Your task to perform on an android device: turn on showing notifications on the lock screen Image 0: 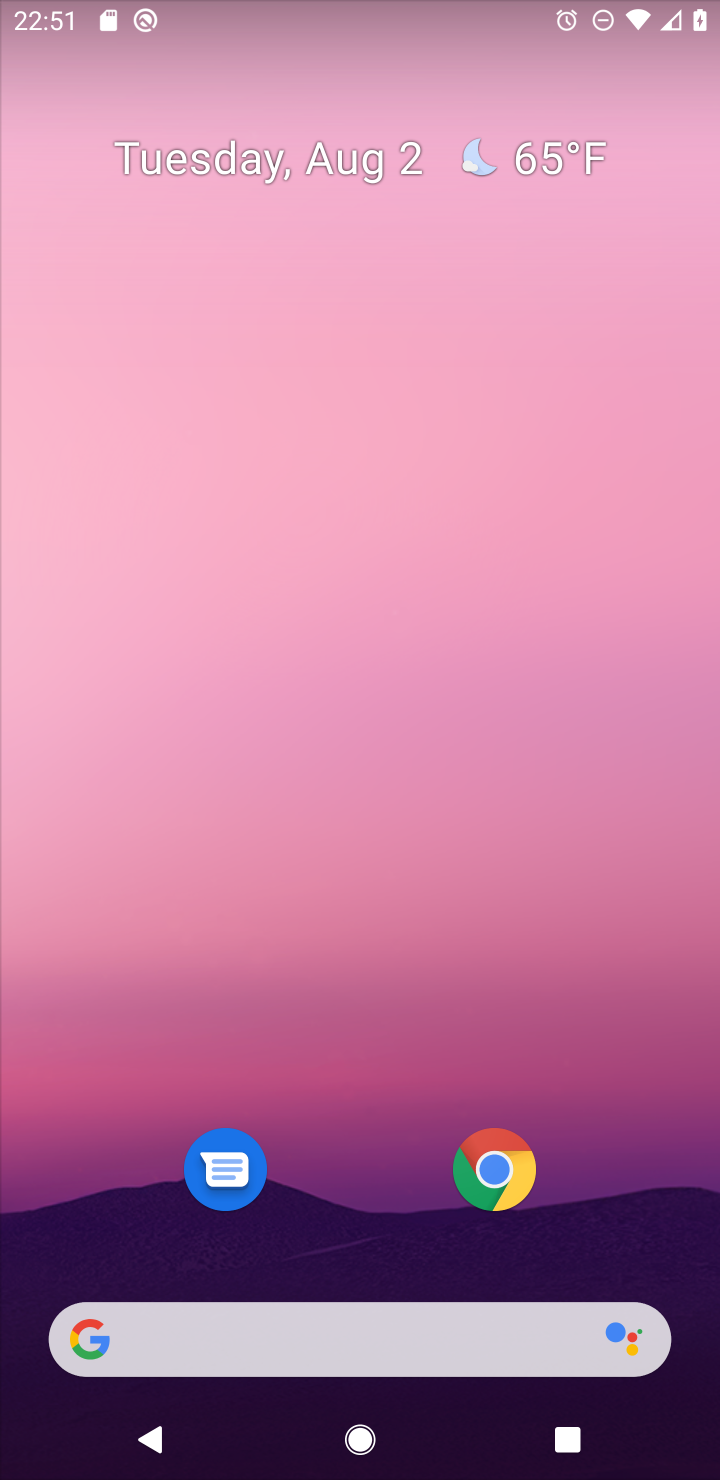
Step 0: drag from (353, 997) to (353, 71)
Your task to perform on an android device: turn on showing notifications on the lock screen Image 1: 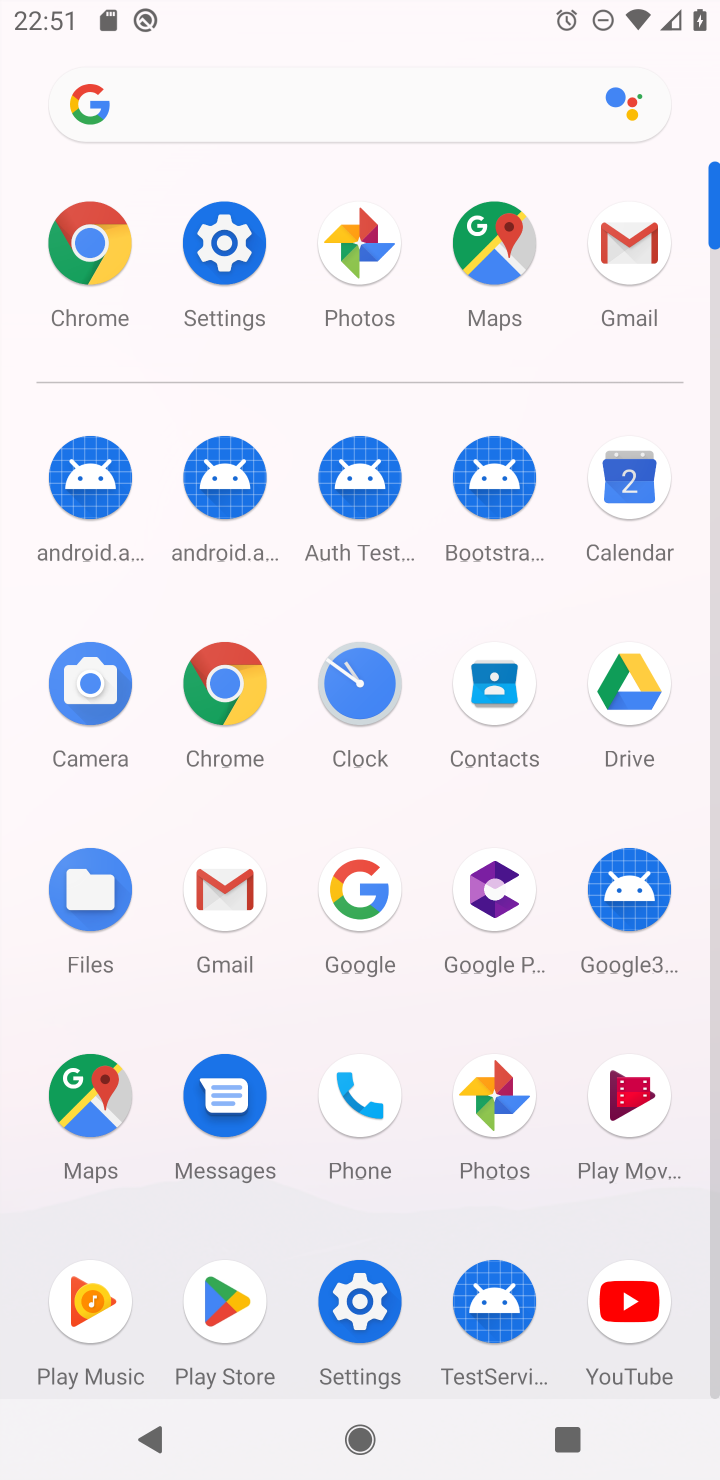
Step 1: click (219, 240)
Your task to perform on an android device: turn on showing notifications on the lock screen Image 2: 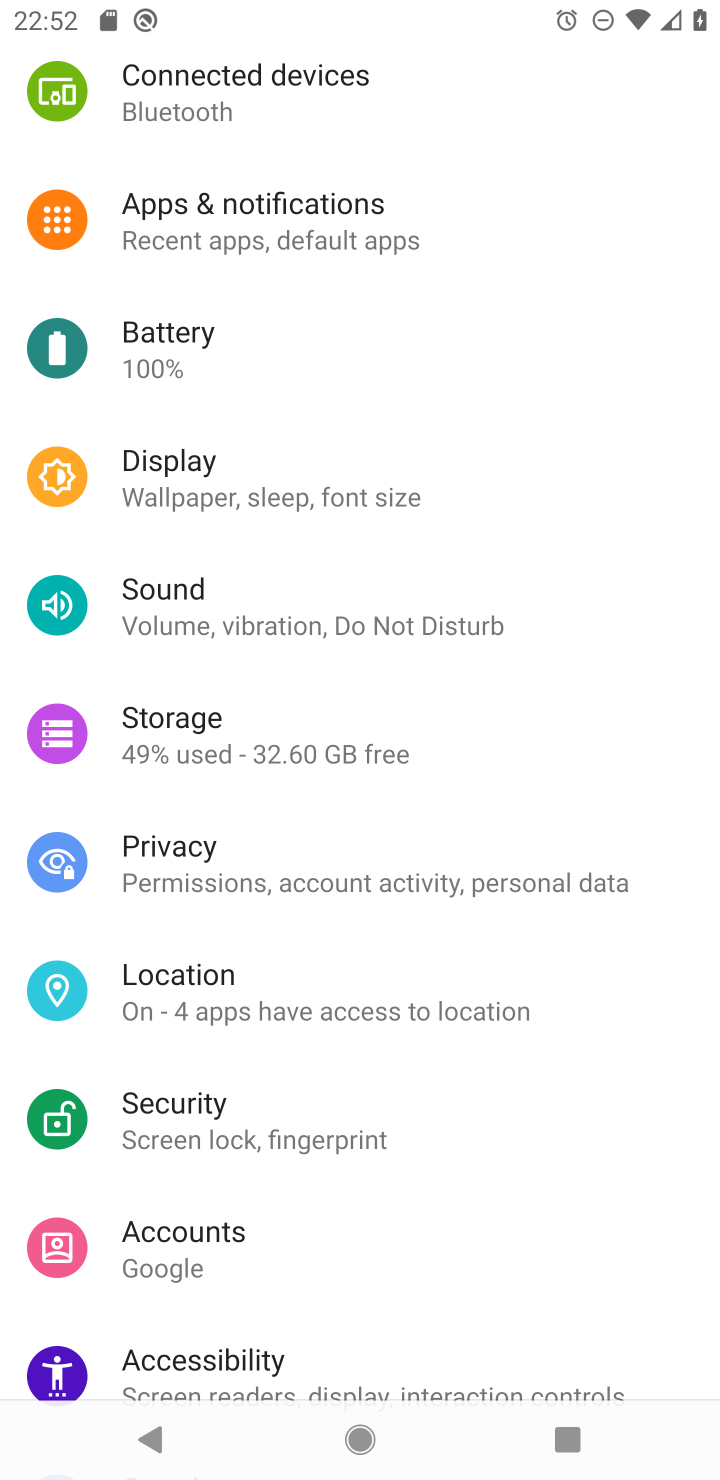
Step 2: click (189, 241)
Your task to perform on an android device: turn on showing notifications on the lock screen Image 3: 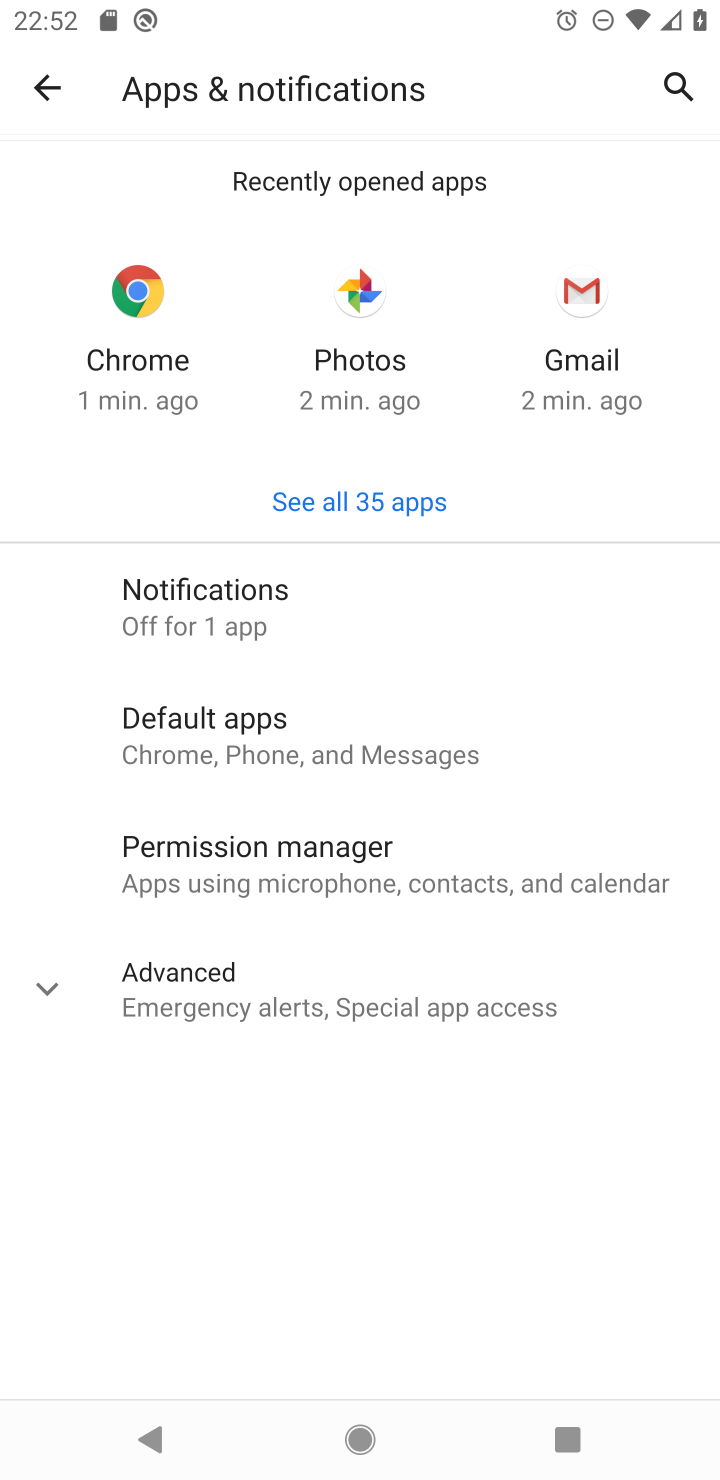
Step 3: click (248, 595)
Your task to perform on an android device: turn on showing notifications on the lock screen Image 4: 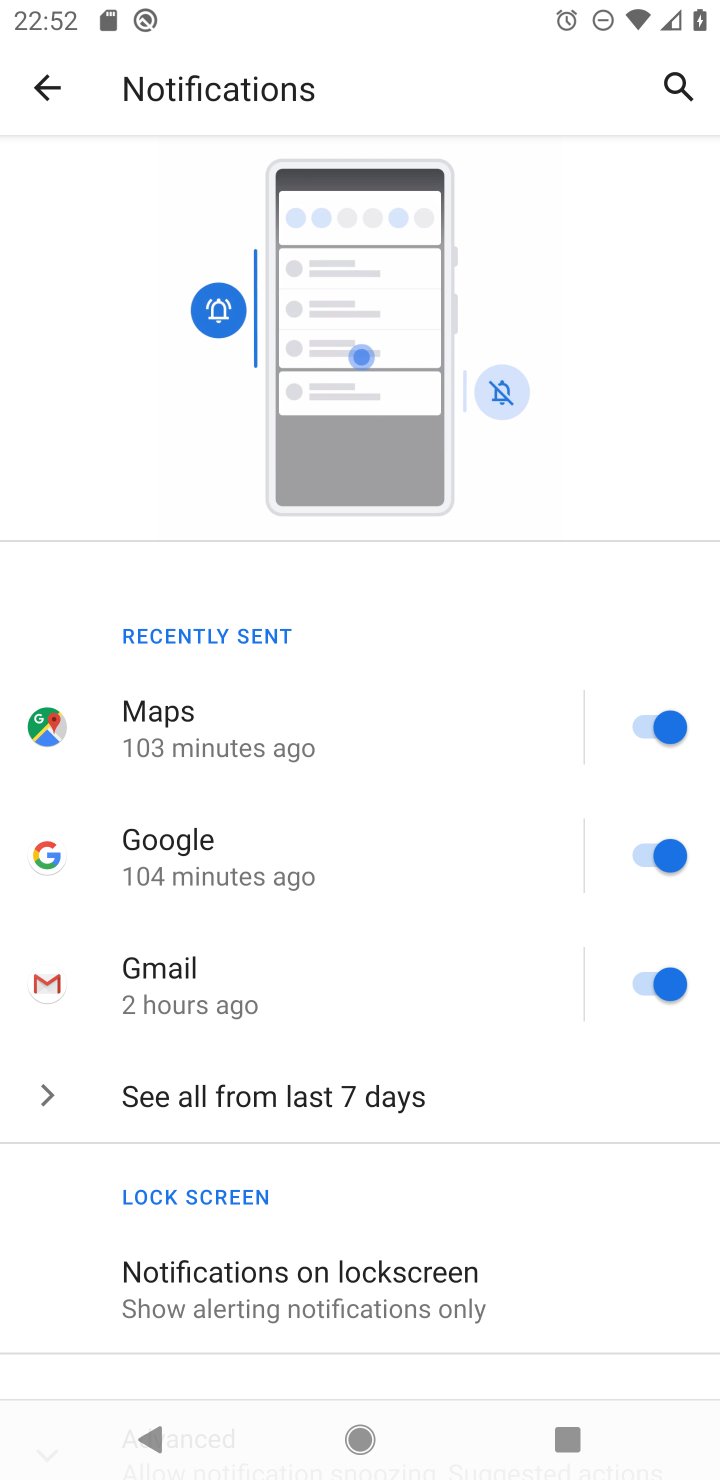
Step 4: drag from (363, 1344) to (371, 823)
Your task to perform on an android device: turn on showing notifications on the lock screen Image 5: 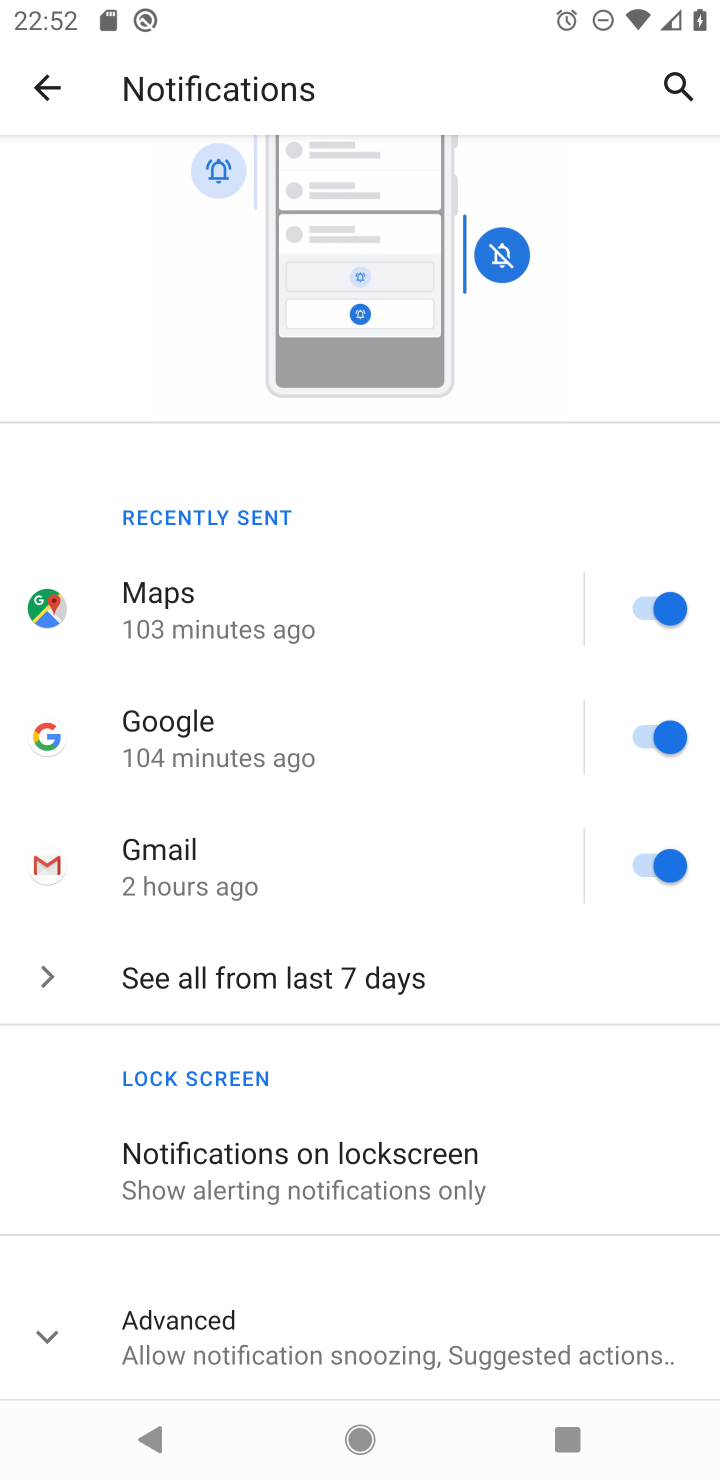
Step 5: click (373, 1159)
Your task to perform on an android device: turn on showing notifications on the lock screen Image 6: 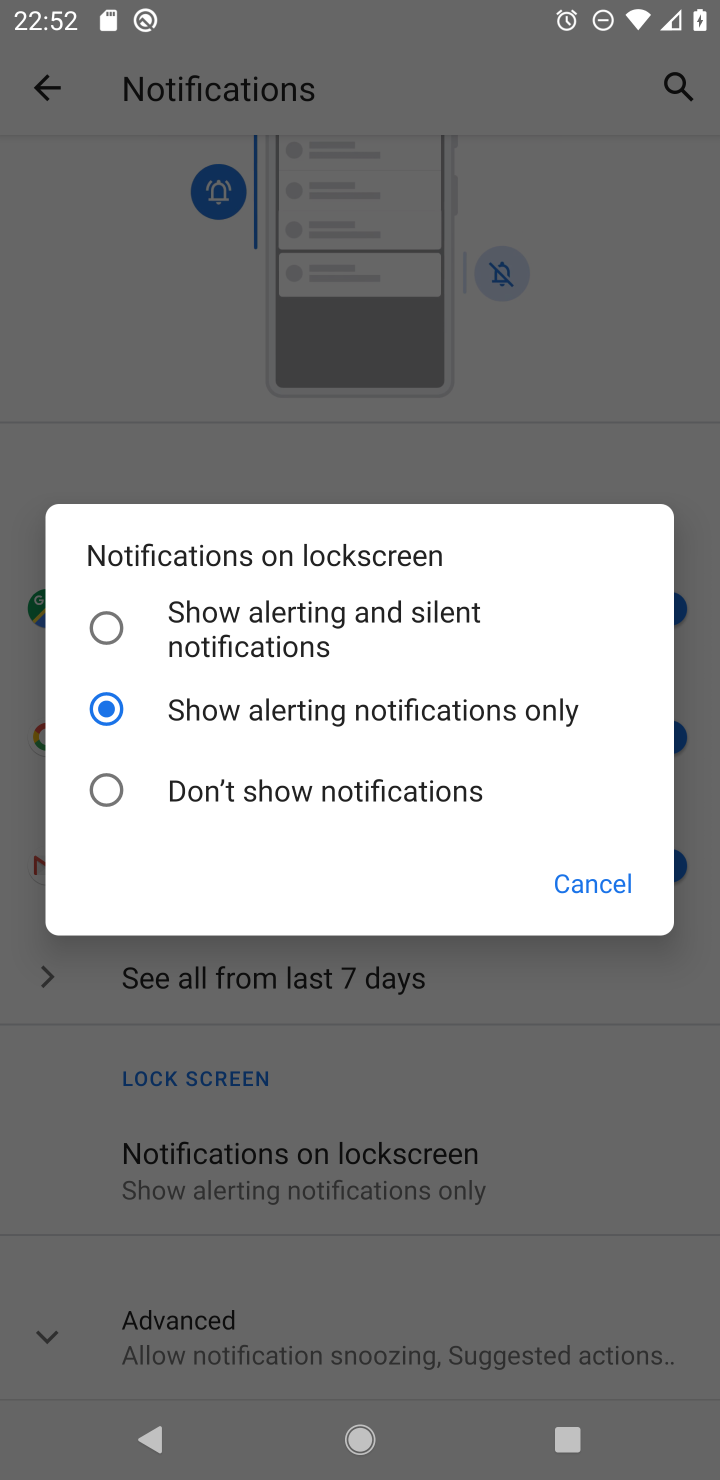
Step 6: click (94, 781)
Your task to perform on an android device: turn on showing notifications on the lock screen Image 7: 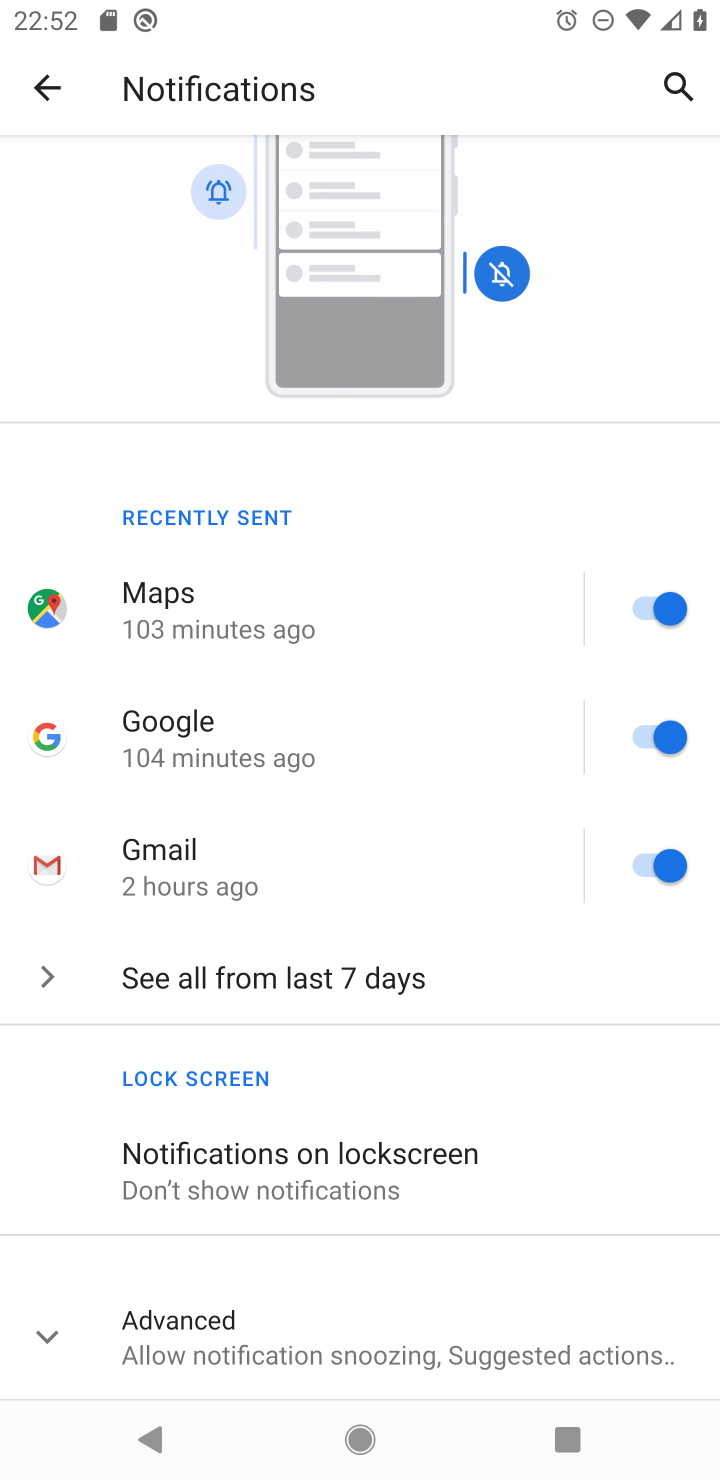
Step 7: task complete